Your task to perform on an android device: turn on the 12-hour format for clock Image 0: 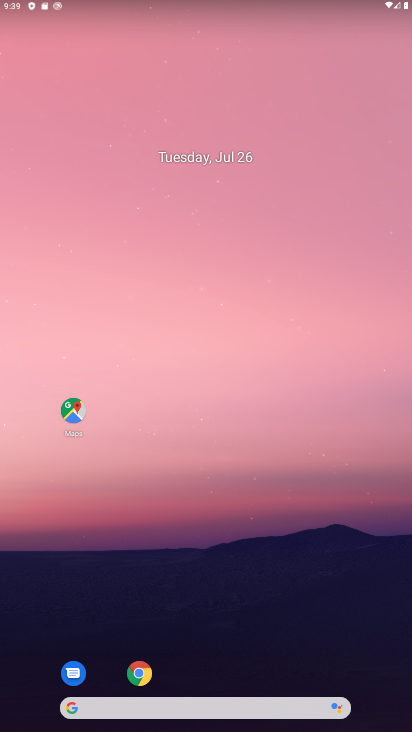
Step 0: drag from (30, 622) to (265, 110)
Your task to perform on an android device: turn on the 12-hour format for clock Image 1: 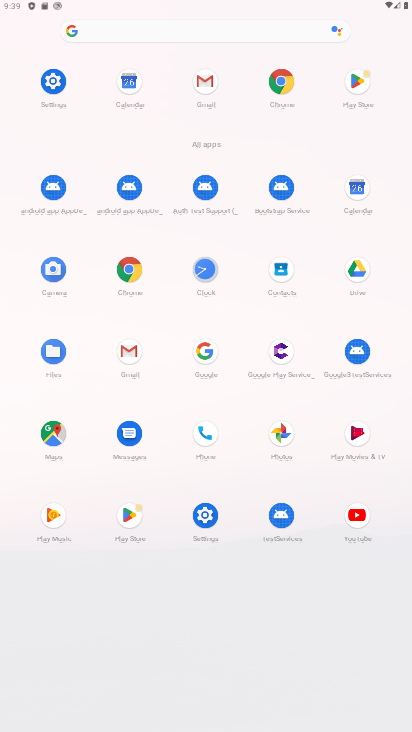
Step 1: click (202, 290)
Your task to perform on an android device: turn on the 12-hour format for clock Image 2: 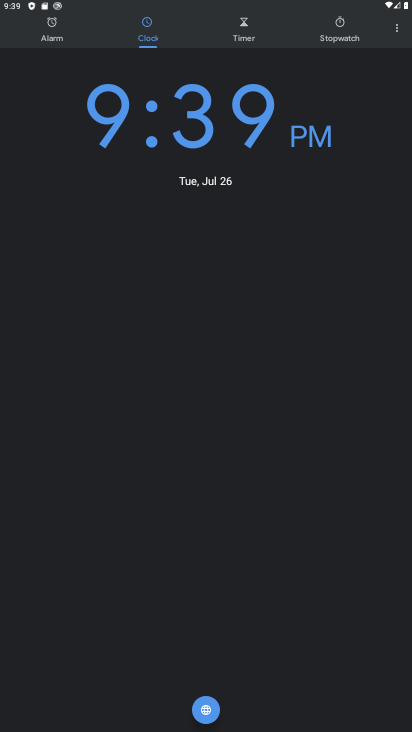
Step 2: click (395, 27)
Your task to perform on an android device: turn on the 12-hour format for clock Image 3: 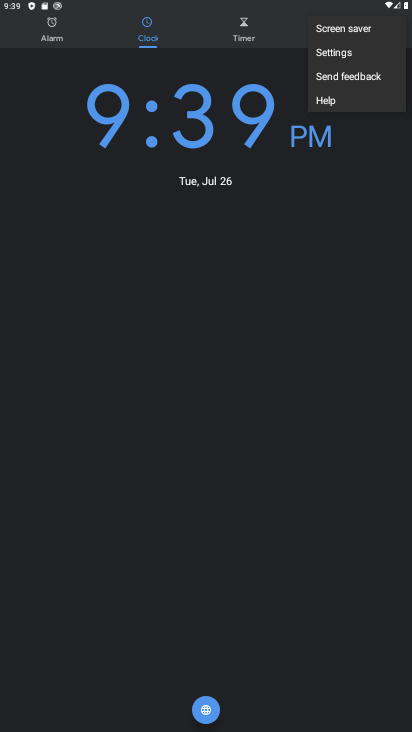
Step 3: click (334, 46)
Your task to perform on an android device: turn on the 12-hour format for clock Image 4: 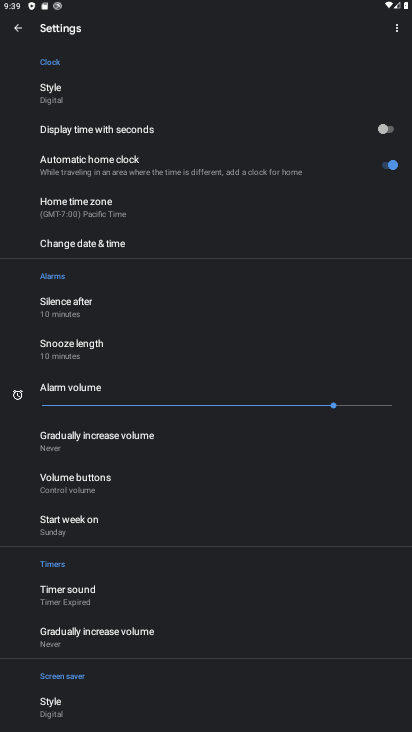
Step 4: click (110, 241)
Your task to perform on an android device: turn on the 12-hour format for clock Image 5: 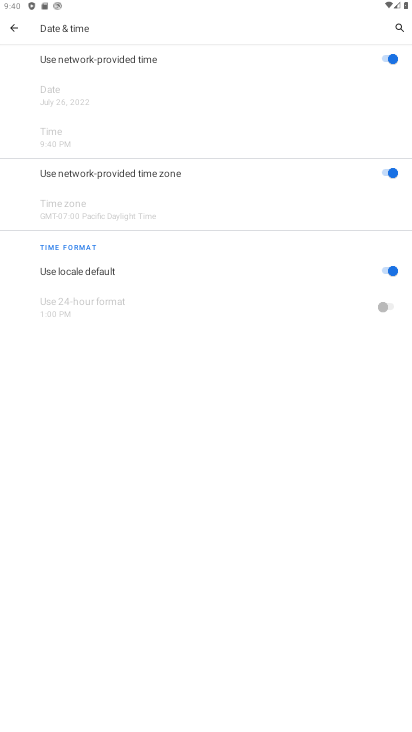
Step 5: task complete